Your task to perform on an android device: Check the weather Image 0: 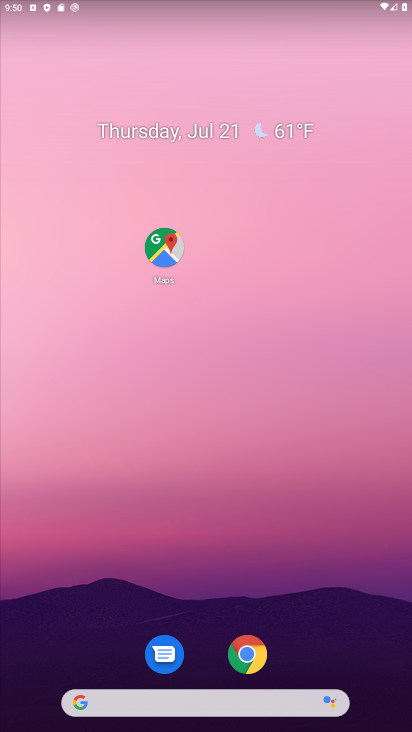
Step 0: click (136, 711)
Your task to perform on an android device: Check the weather Image 1: 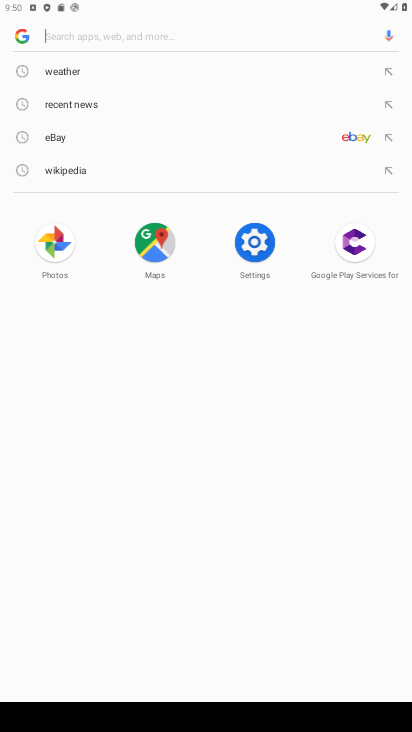
Step 1: click (71, 71)
Your task to perform on an android device: Check the weather Image 2: 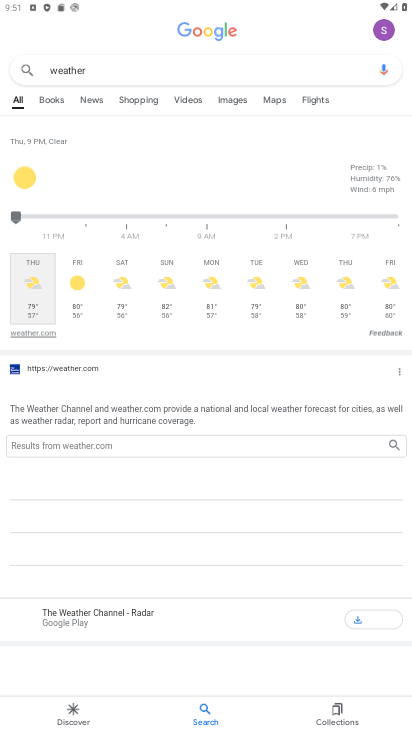
Step 2: task complete